Your task to perform on an android device: Go to Wikipedia Image 0: 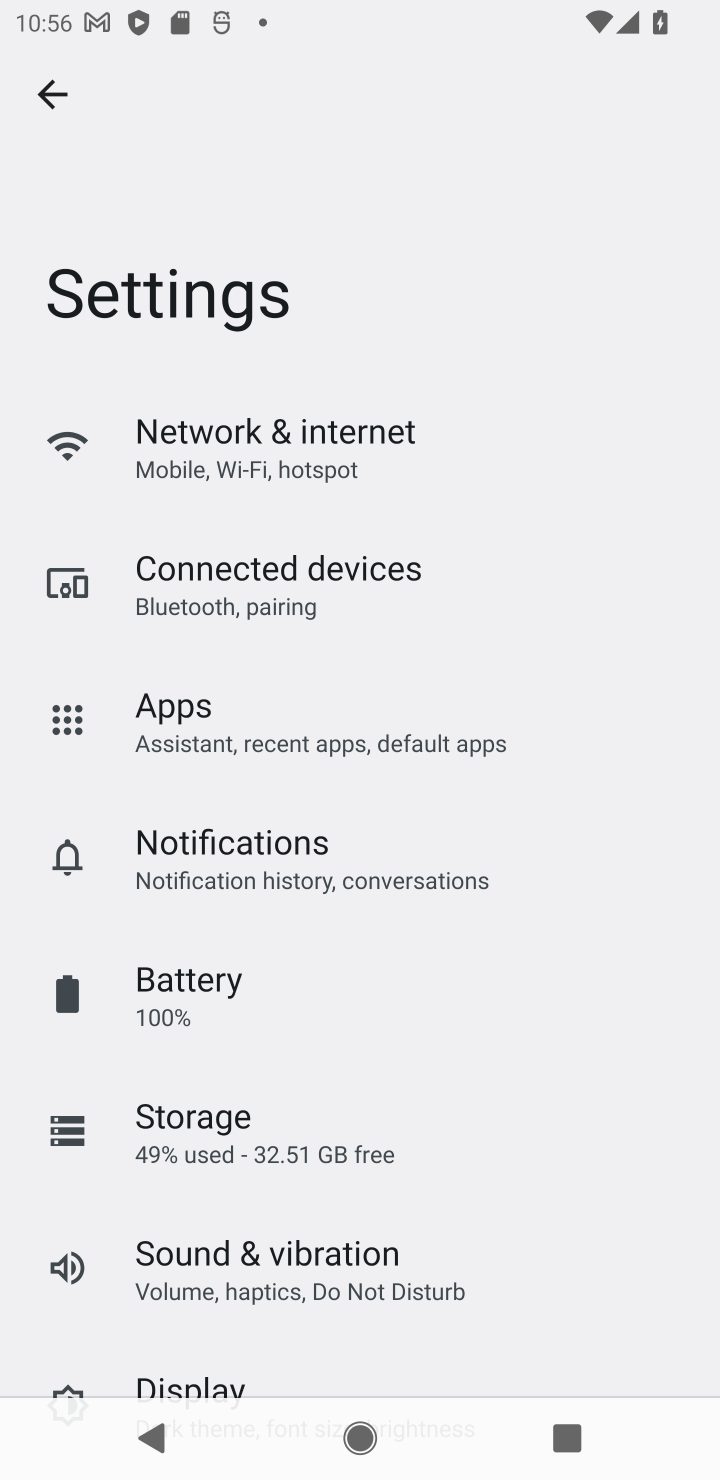
Step 0: press home button
Your task to perform on an android device: Go to Wikipedia Image 1: 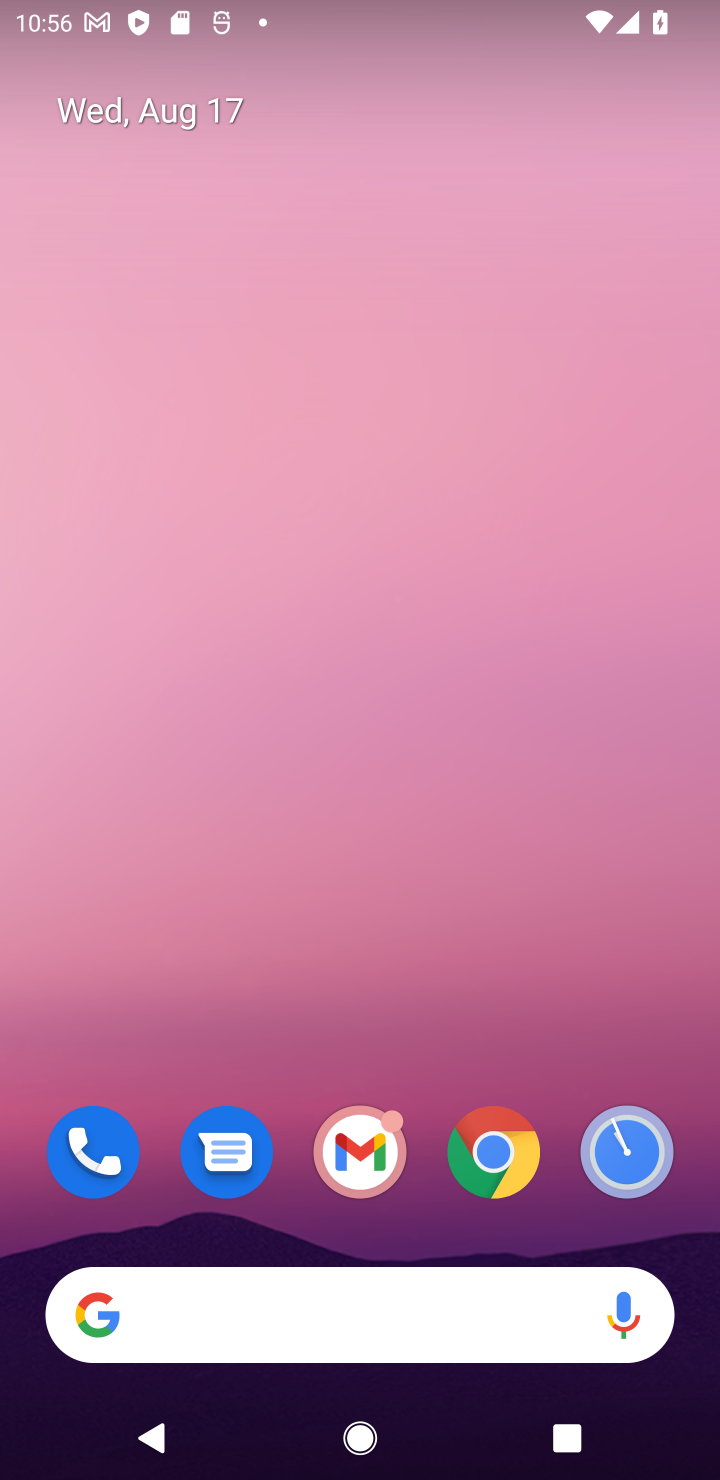
Step 1: drag from (518, 864) to (315, 92)
Your task to perform on an android device: Go to Wikipedia Image 2: 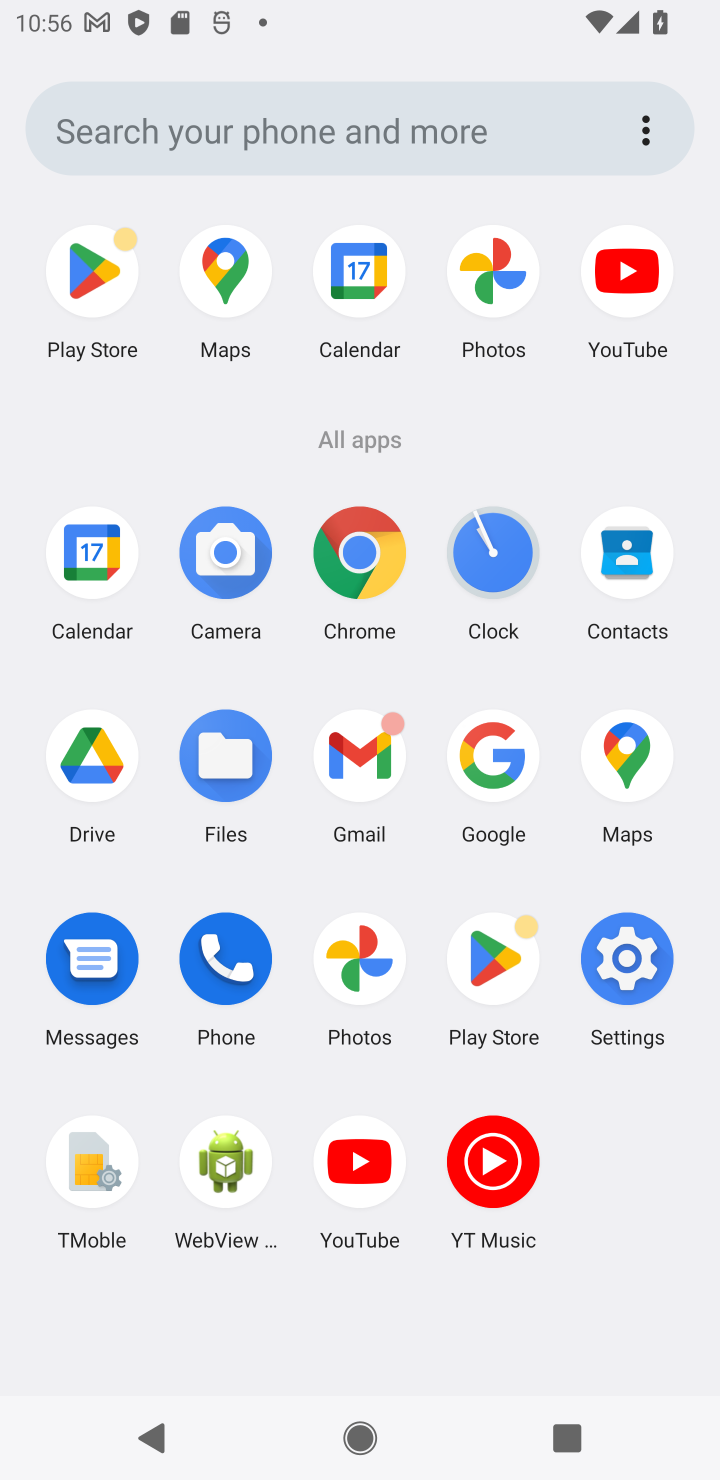
Step 2: click (504, 767)
Your task to perform on an android device: Go to Wikipedia Image 3: 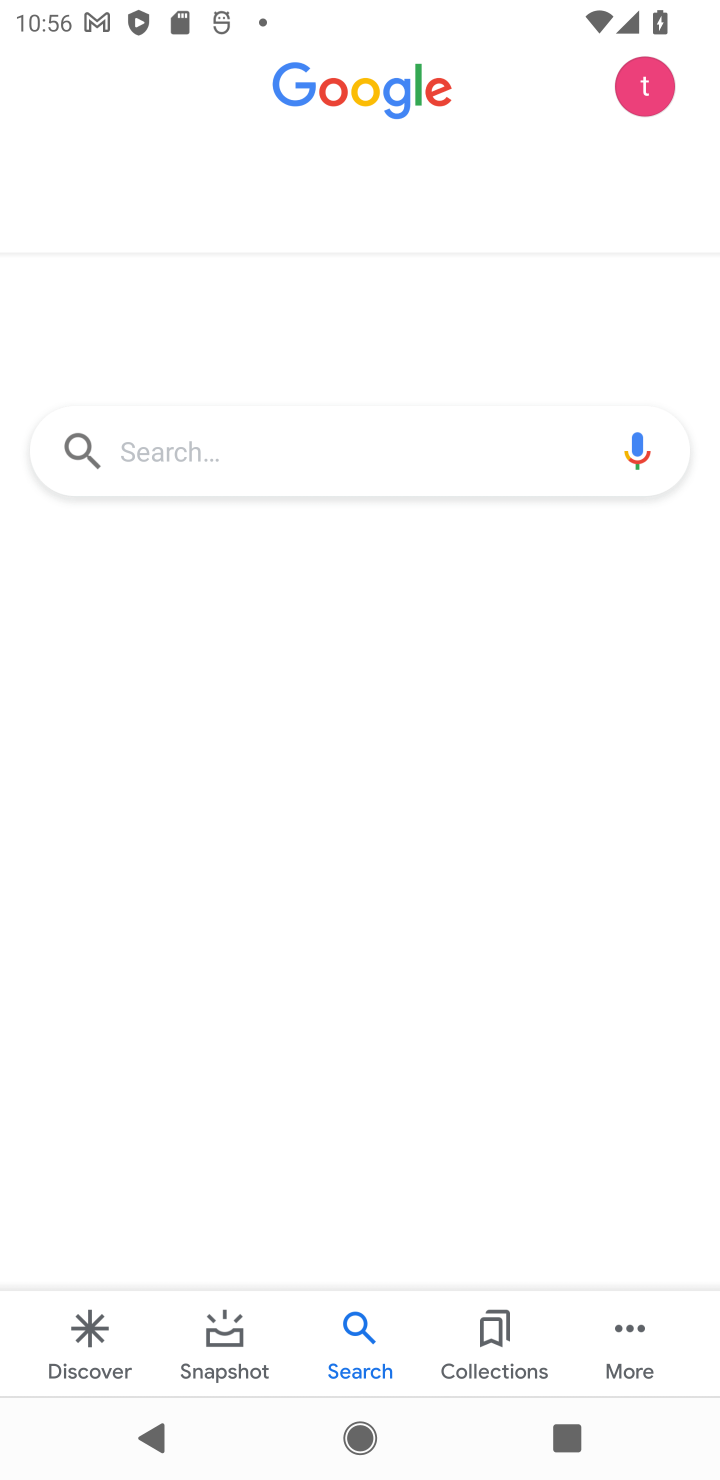
Step 3: click (168, 438)
Your task to perform on an android device: Go to Wikipedia Image 4: 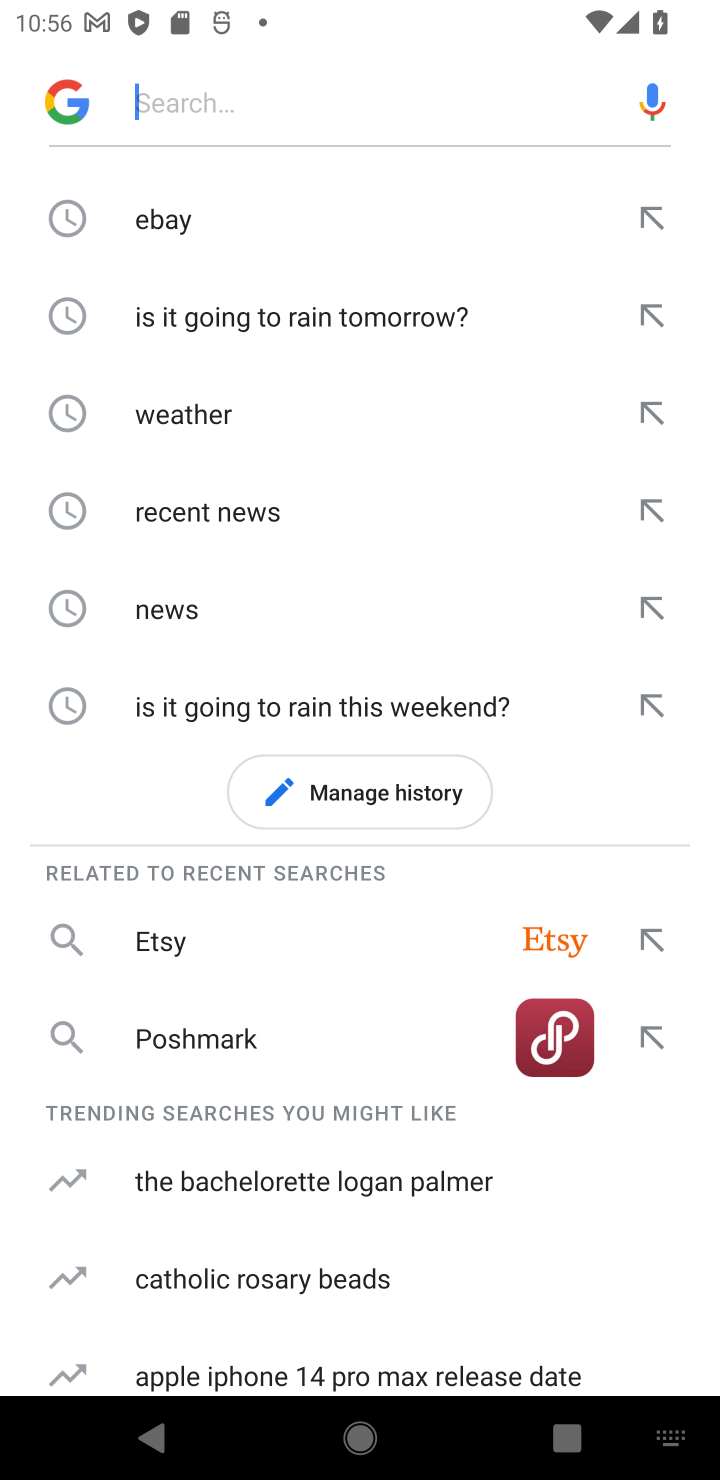
Step 4: type "Wikipedia"
Your task to perform on an android device: Go to Wikipedia Image 5: 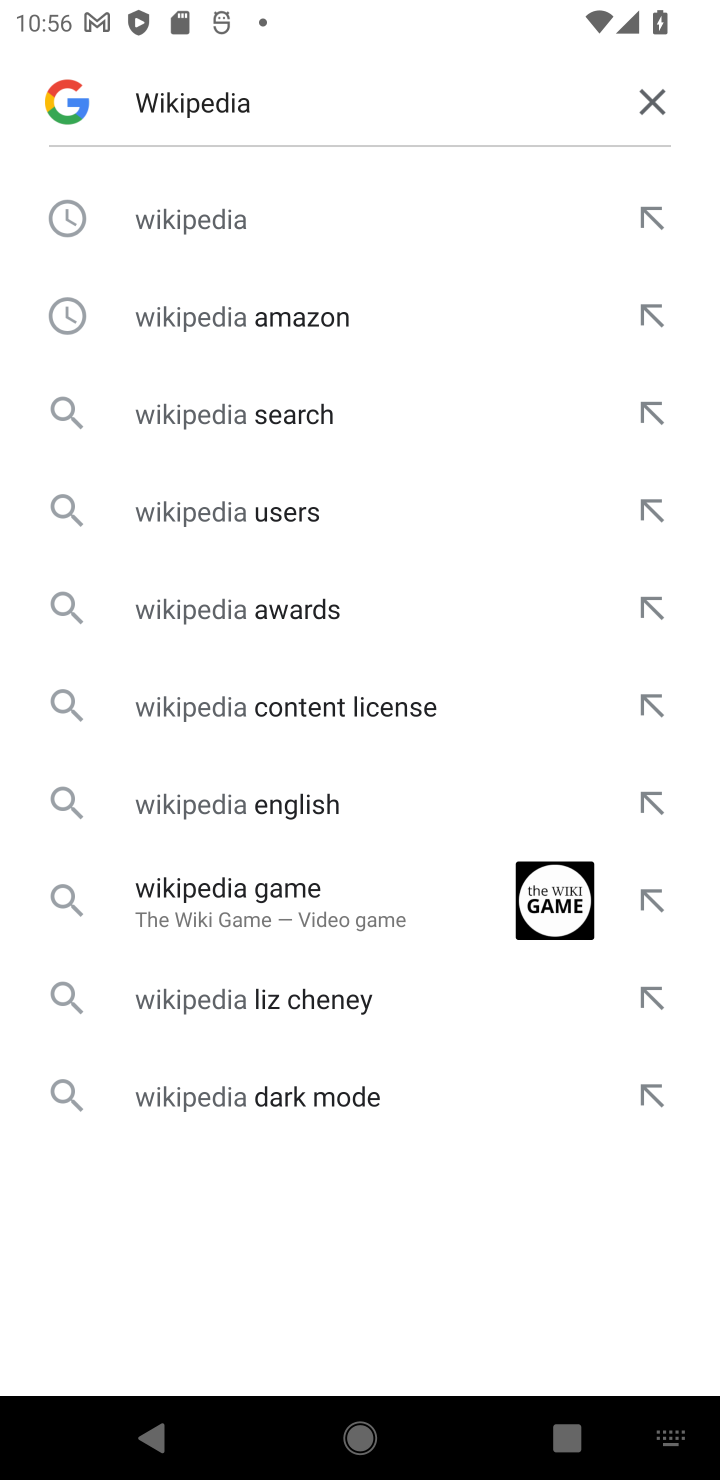
Step 5: click (292, 233)
Your task to perform on an android device: Go to Wikipedia Image 6: 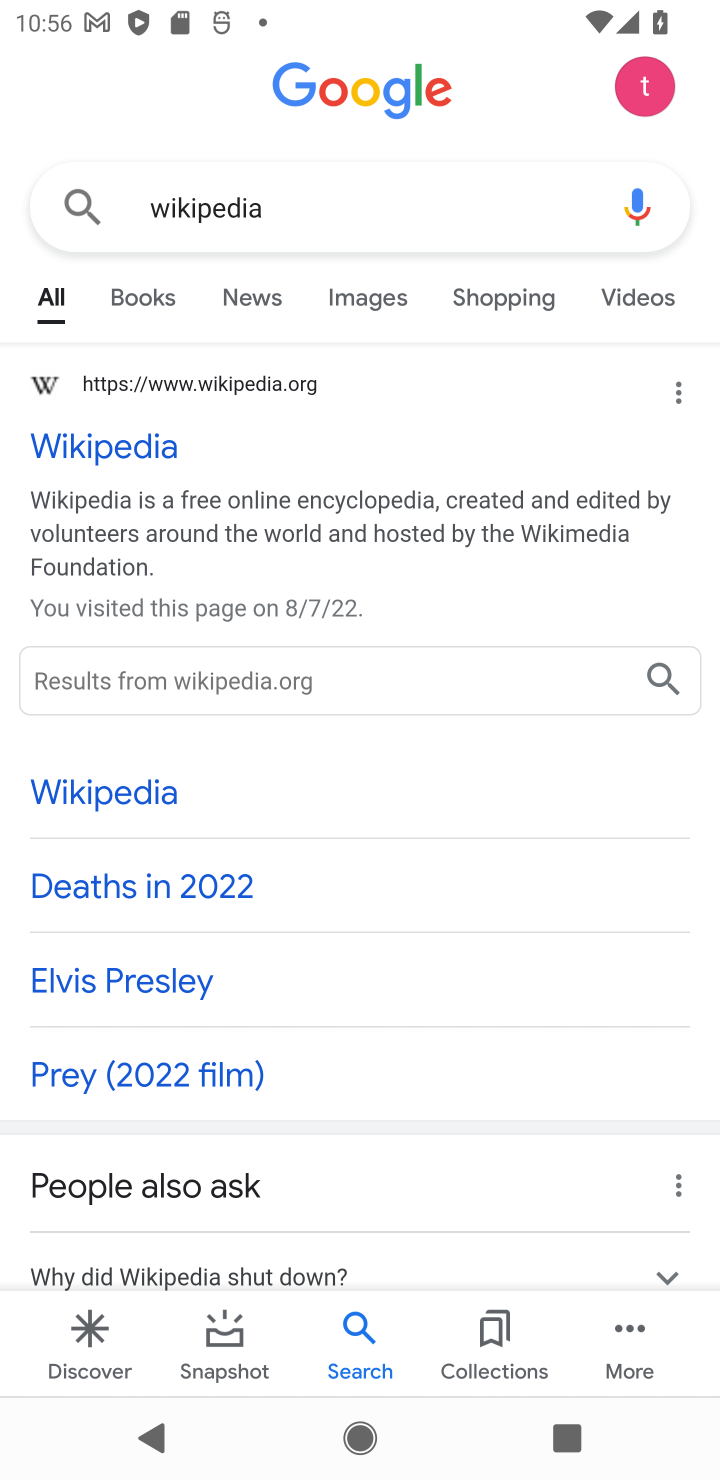
Step 6: task complete